Your task to perform on an android device: check the backup settings in the google photos Image 0: 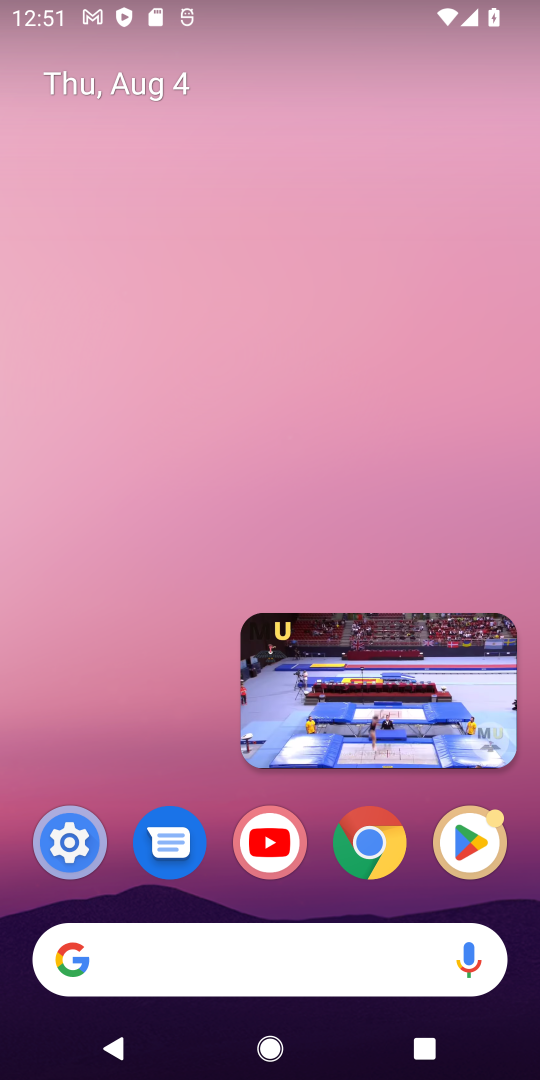
Step 0: drag from (151, 763) to (100, 15)
Your task to perform on an android device: check the backup settings in the google photos Image 1: 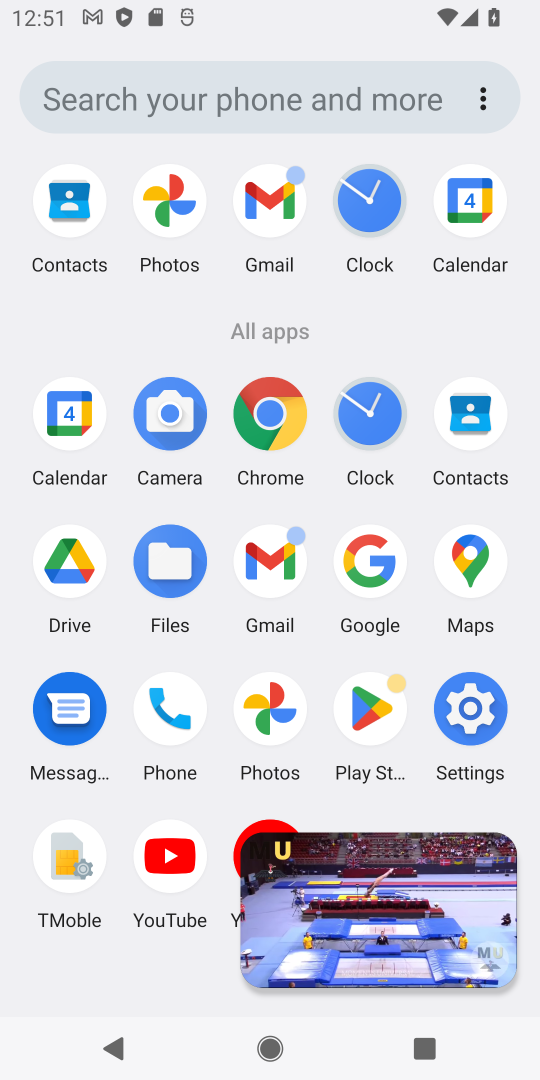
Step 1: click (260, 716)
Your task to perform on an android device: check the backup settings in the google photos Image 2: 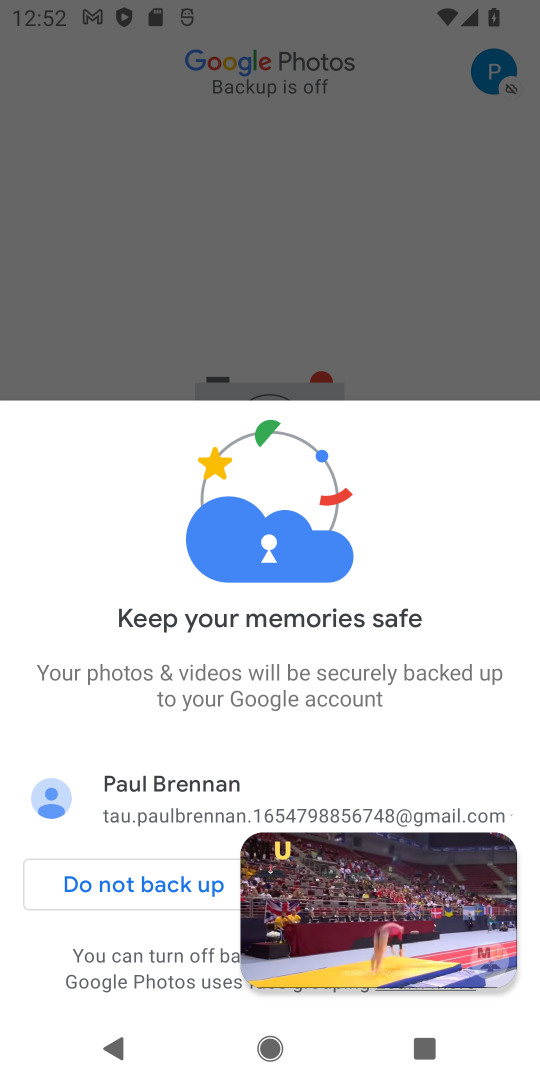
Step 2: click (459, 146)
Your task to perform on an android device: check the backup settings in the google photos Image 3: 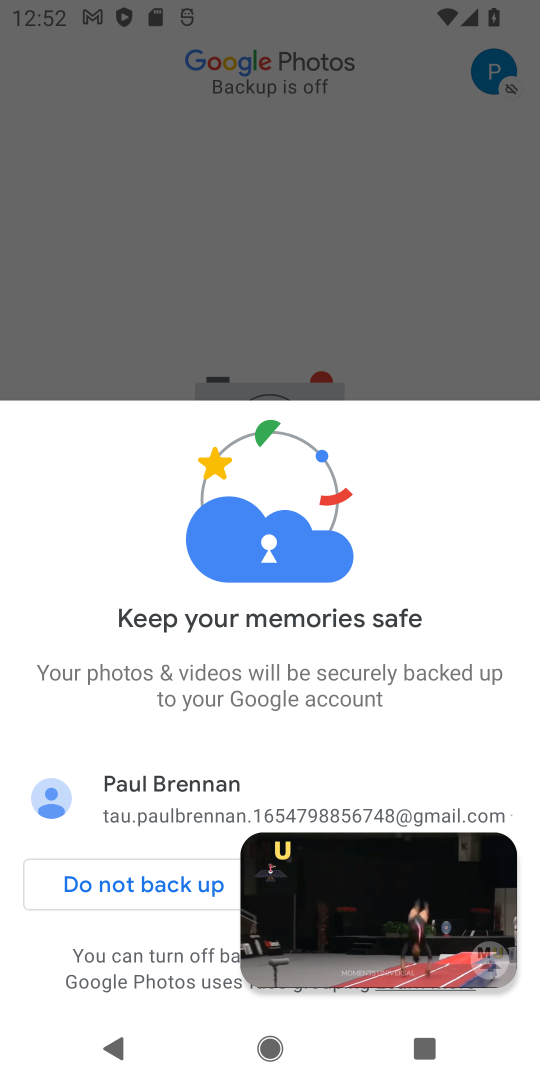
Step 3: click (147, 879)
Your task to perform on an android device: check the backup settings in the google photos Image 4: 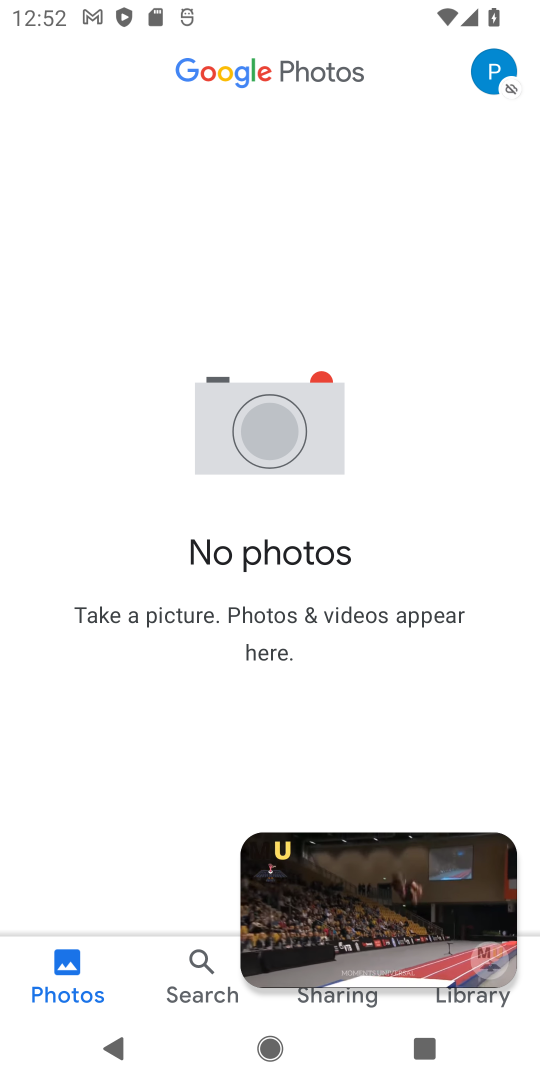
Step 4: click (489, 59)
Your task to perform on an android device: check the backup settings in the google photos Image 5: 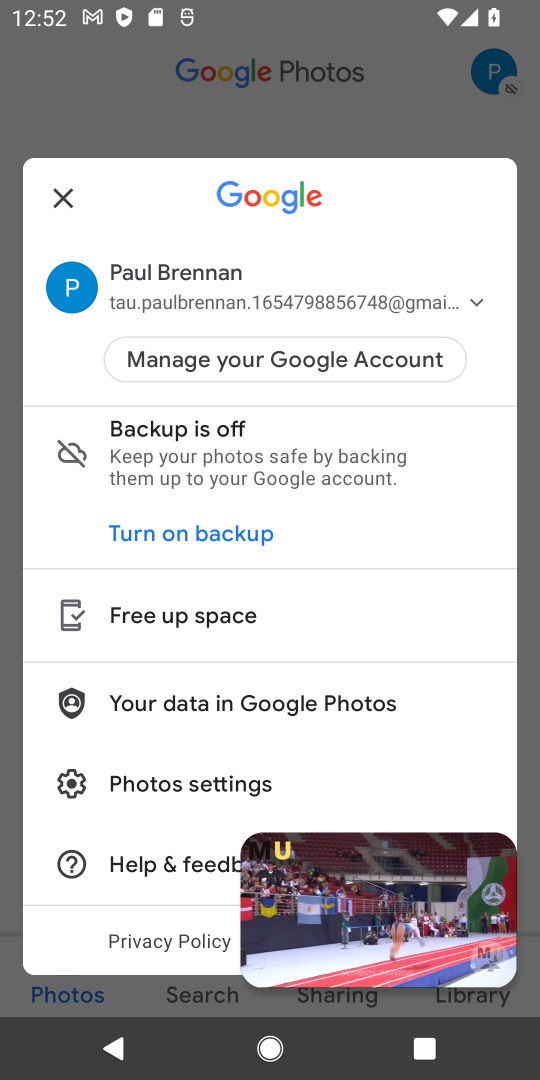
Step 5: click (166, 774)
Your task to perform on an android device: check the backup settings in the google photos Image 6: 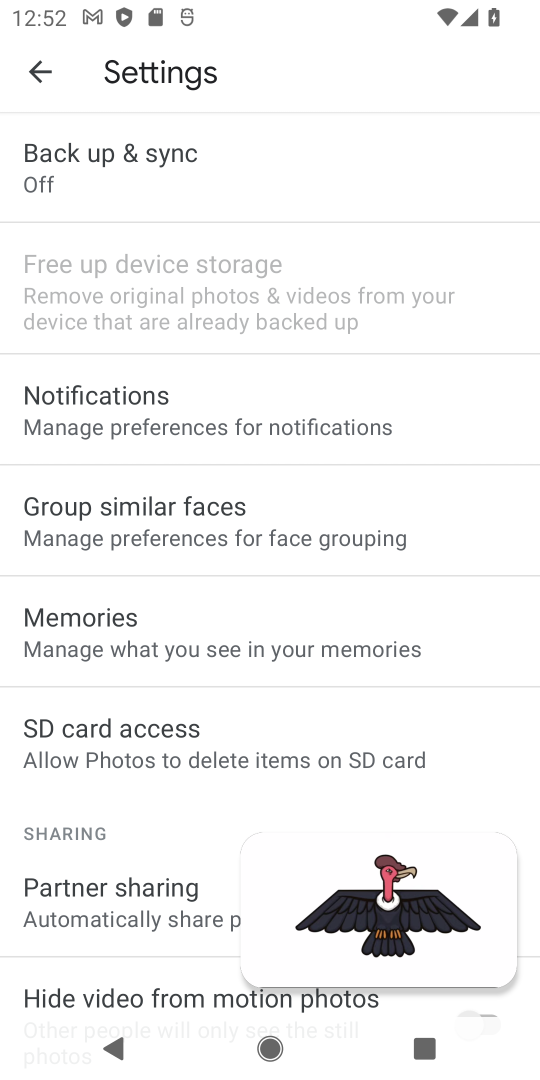
Step 6: click (300, 176)
Your task to perform on an android device: check the backup settings in the google photos Image 7: 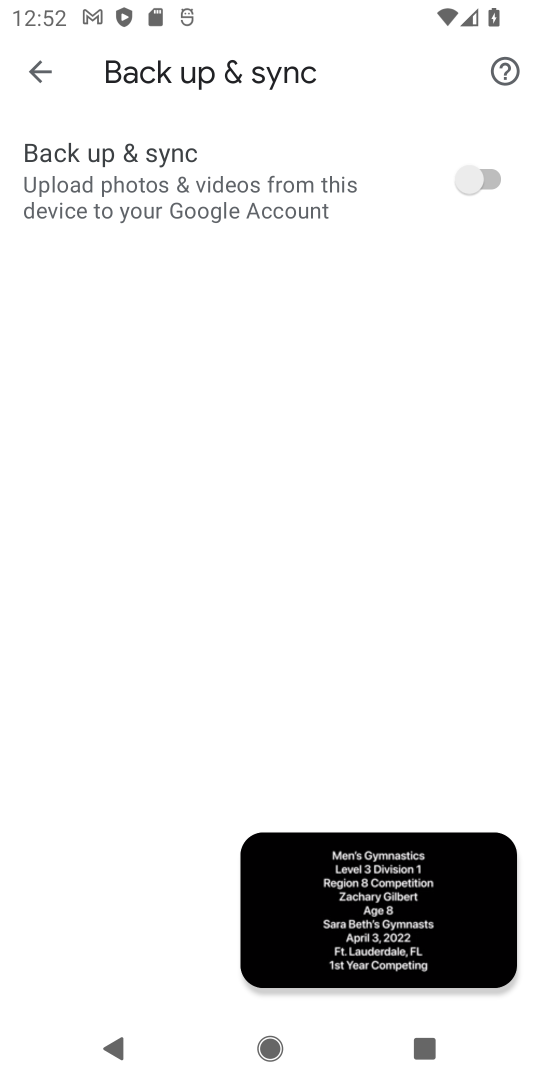
Step 7: task complete